Your task to perform on an android device: Play the last video I watched on Youtube Image 0: 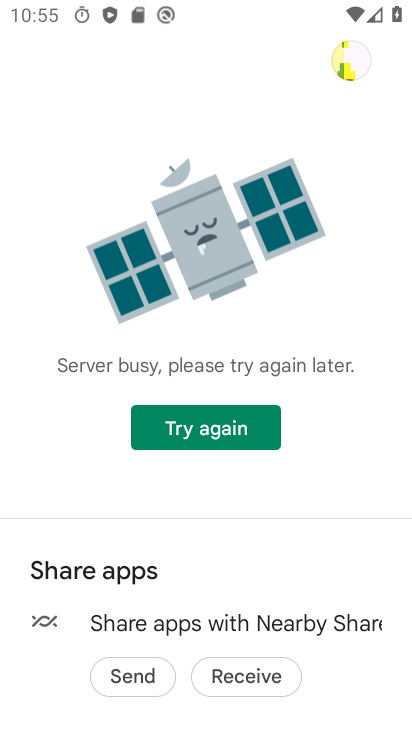
Step 0: press back button
Your task to perform on an android device: Play the last video I watched on Youtube Image 1: 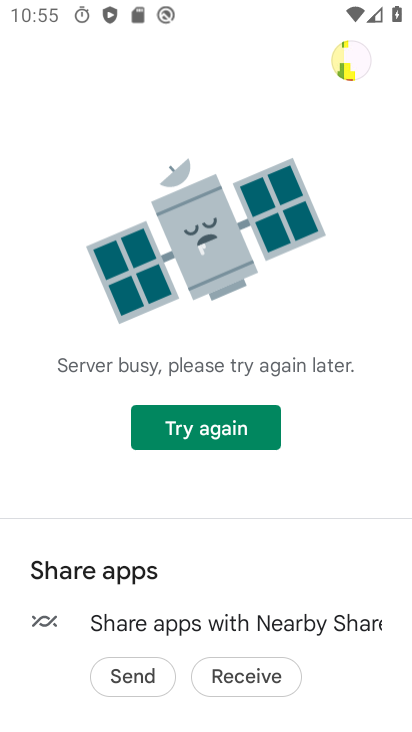
Step 1: press back button
Your task to perform on an android device: Play the last video I watched on Youtube Image 2: 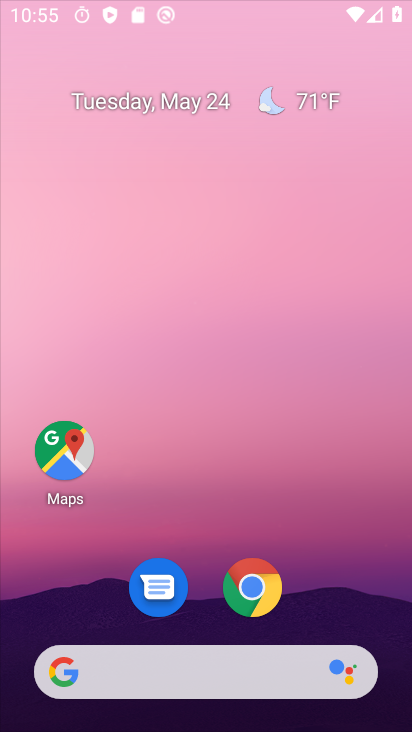
Step 2: press back button
Your task to perform on an android device: Play the last video I watched on Youtube Image 3: 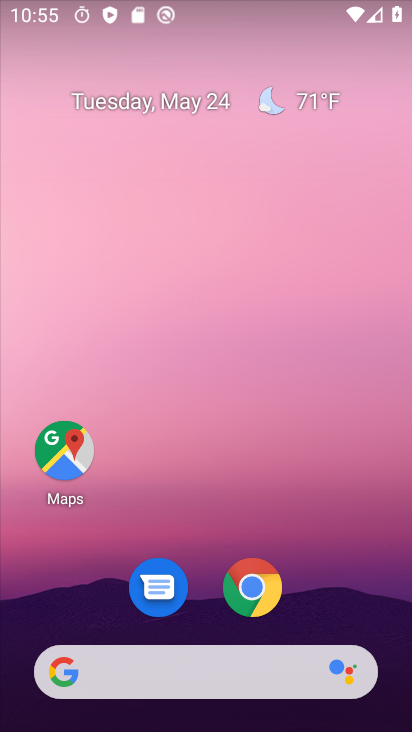
Step 3: press back button
Your task to perform on an android device: Play the last video I watched on Youtube Image 4: 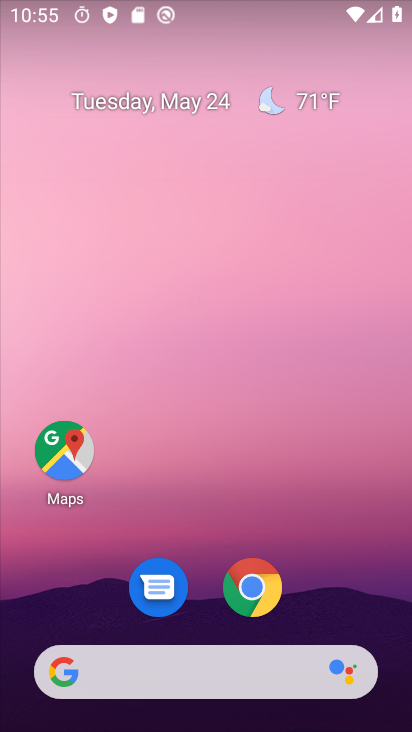
Step 4: press back button
Your task to perform on an android device: Play the last video I watched on Youtube Image 5: 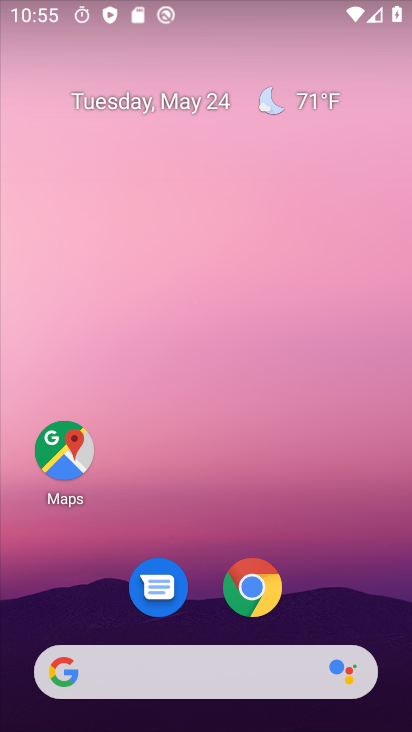
Step 5: drag from (388, 677) to (271, 126)
Your task to perform on an android device: Play the last video I watched on Youtube Image 6: 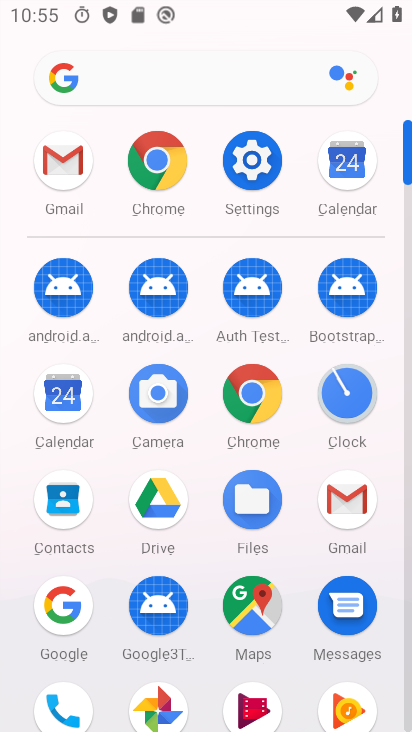
Step 6: drag from (235, 574) to (287, 251)
Your task to perform on an android device: Play the last video I watched on Youtube Image 7: 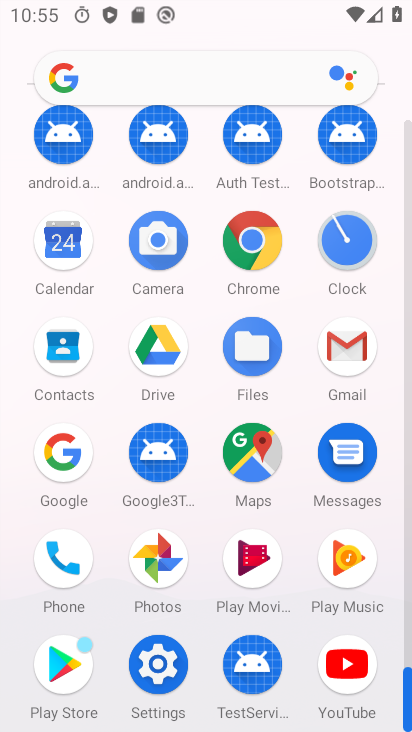
Step 7: drag from (296, 527) to (301, 215)
Your task to perform on an android device: Play the last video I watched on Youtube Image 8: 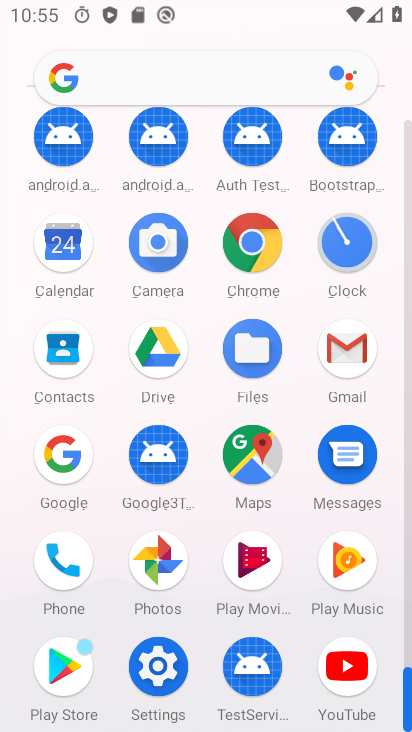
Step 8: click (335, 668)
Your task to perform on an android device: Play the last video I watched on Youtube Image 9: 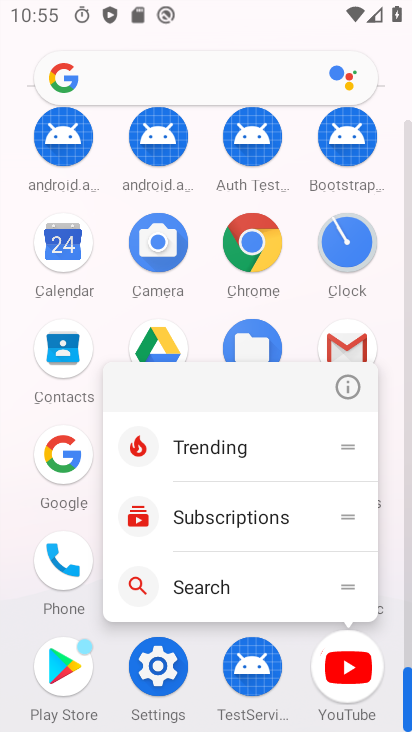
Step 9: click (338, 669)
Your task to perform on an android device: Play the last video I watched on Youtube Image 10: 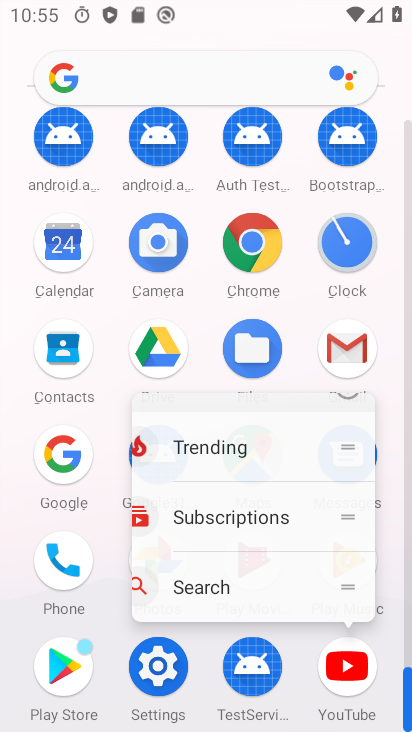
Step 10: click (338, 669)
Your task to perform on an android device: Play the last video I watched on Youtube Image 11: 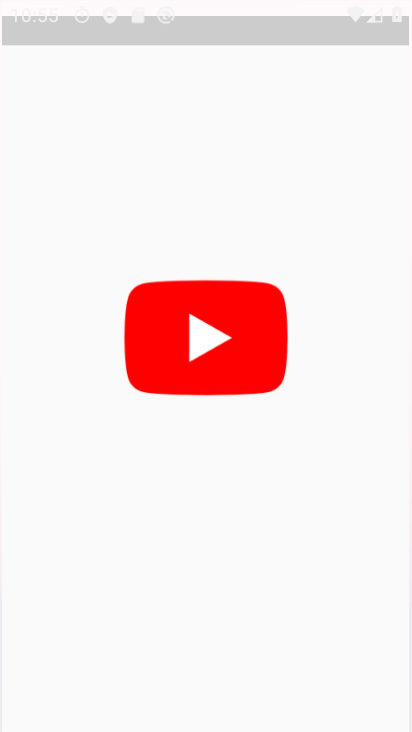
Step 11: click (338, 669)
Your task to perform on an android device: Play the last video I watched on Youtube Image 12: 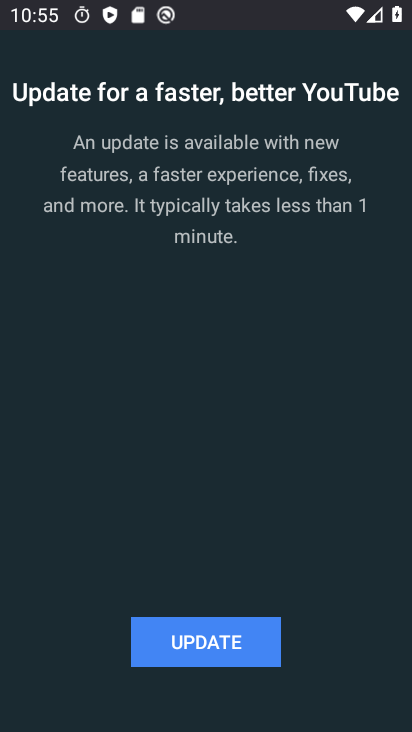
Step 12: click (188, 638)
Your task to perform on an android device: Play the last video I watched on Youtube Image 13: 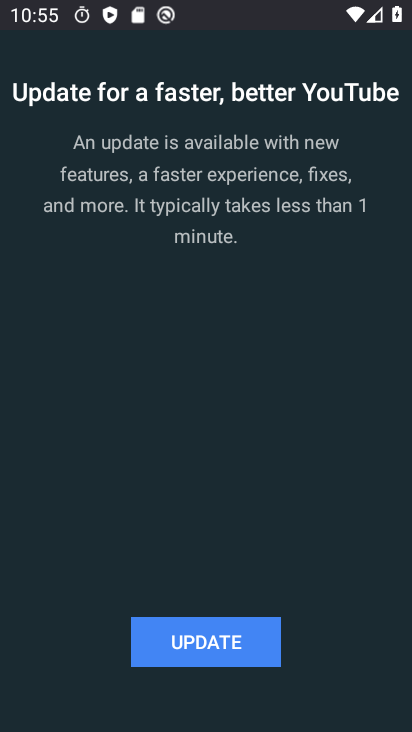
Step 13: click (188, 638)
Your task to perform on an android device: Play the last video I watched on Youtube Image 14: 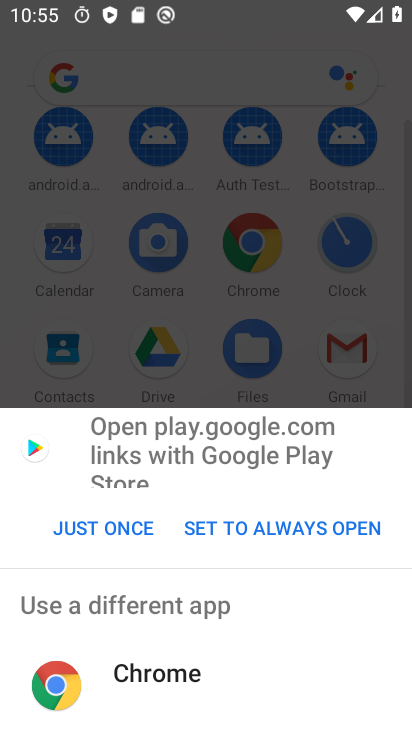
Step 14: click (149, 667)
Your task to perform on an android device: Play the last video I watched on Youtube Image 15: 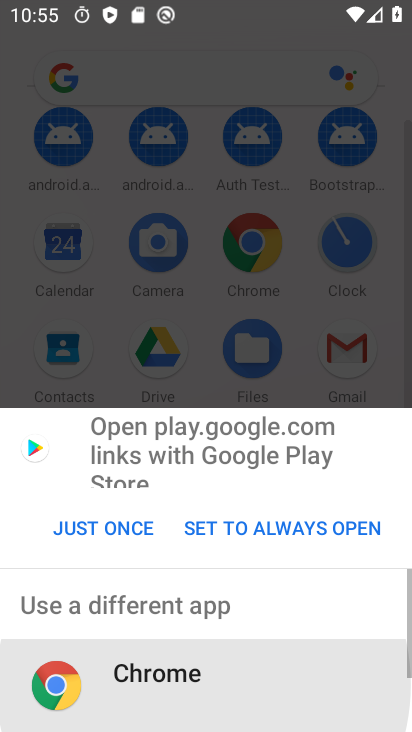
Step 15: click (149, 667)
Your task to perform on an android device: Play the last video I watched on Youtube Image 16: 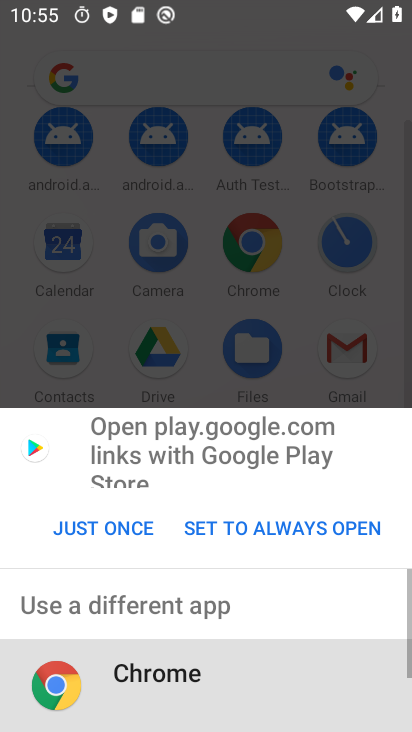
Step 16: click (149, 667)
Your task to perform on an android device: Play the last video I watched on Youtube Image 17: 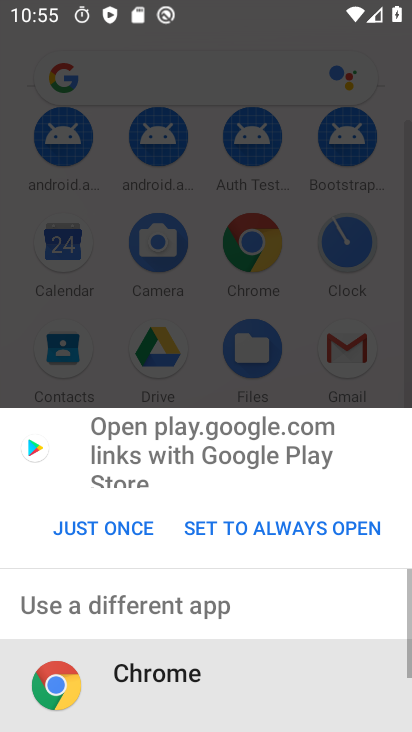
Step 17: click (149, 667)
Your task to perform on an android device: Play the last video I watched on Youtube Image 18: 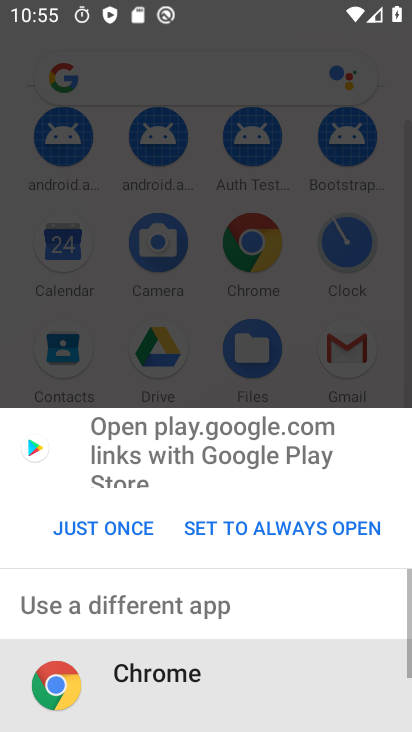
Step 18: click (149, 667)
Your task to perform on an android device: Play the last video I watched on Youtube Image 19: 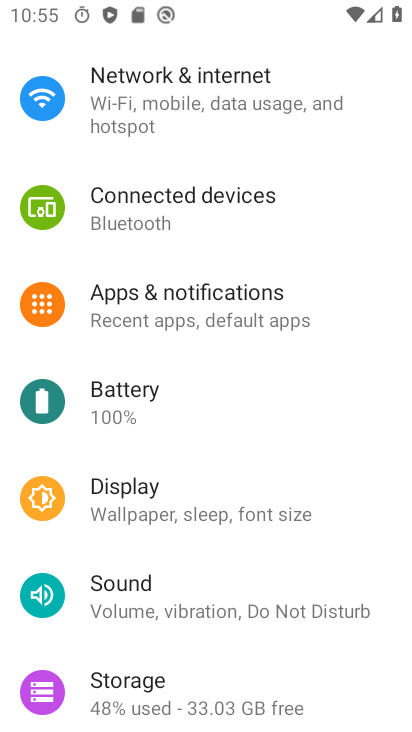
Step 19: press back button
Your task to perform on an android device: Play the last video I watched on Youtube Image 20: 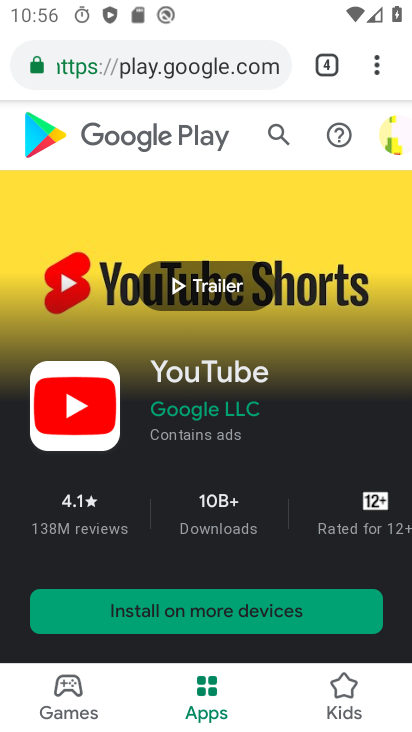
Step 20: drag from (249, 525) to (284, 133)
Your task to perform on an android device: Play the last video I watched on Youtube Image 21: 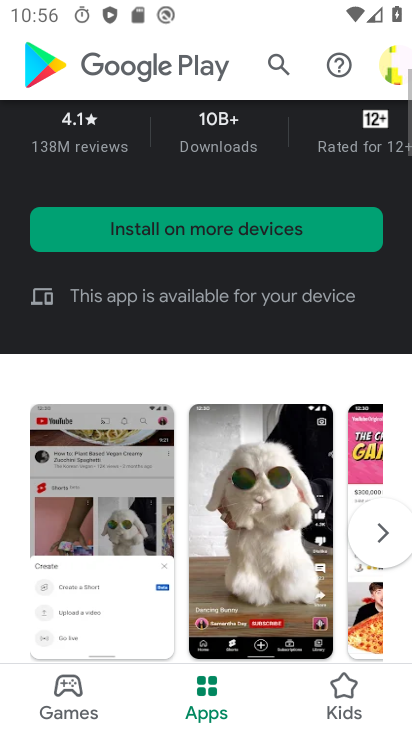
Step 21: drag from (263, 387) to (305, 81)
Your task to perform on an android device: Play the last video I watched on Youtube Image 22: 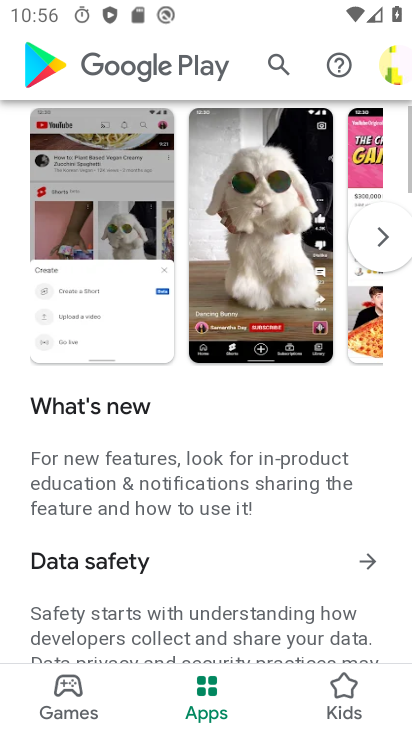
Step 22: drag from (252, 317) to (280, 117)
Your task to perform on an android device: Play the last video I watched on Youtube Image 23: 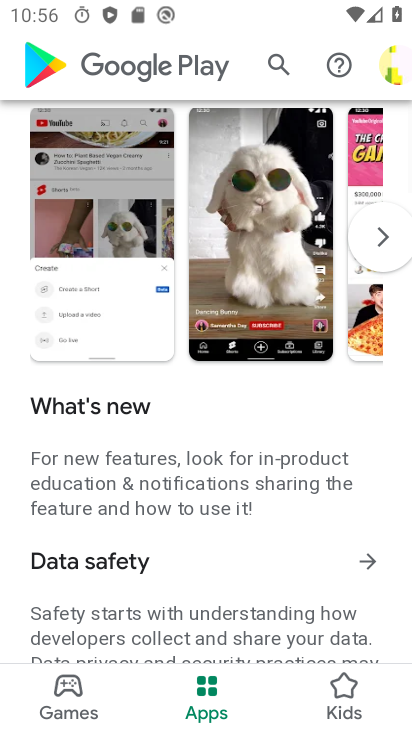
Step 23: drag from (256, 579) to (313, 262)
Your task to perform on an android device: Play the last video I watched on Youtube Image 24: 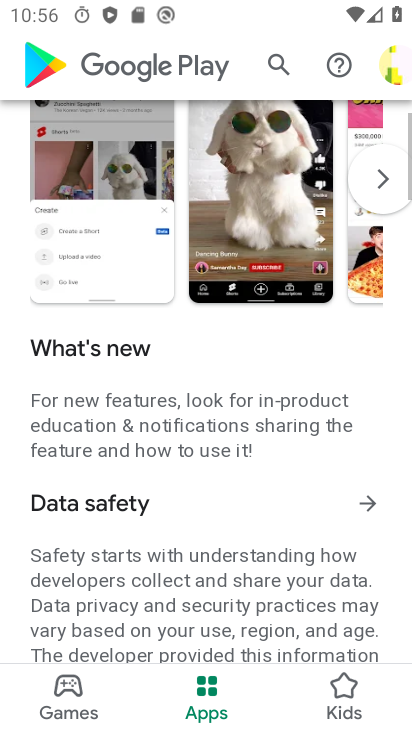
Step 24: drag from (193, 549) to (308, 108)
Your task to perform on an android device: Play the last video I watched on Youtube Image 25: 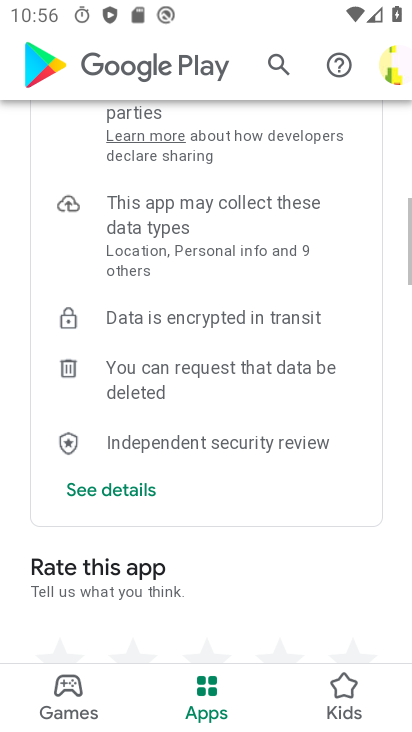
Step 25: drag from (247, 552) to (247, 201)
Your task to perform on an android device: Play the last video I watched on Youtube Image 26: 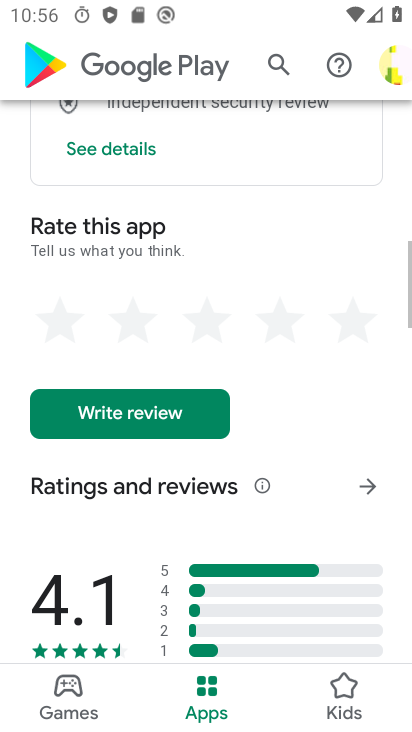
Step 26: drag from (251, 413) to (287, 41)
Your task to perform on an android device: Play the last video I watched on Youtube Image 27: 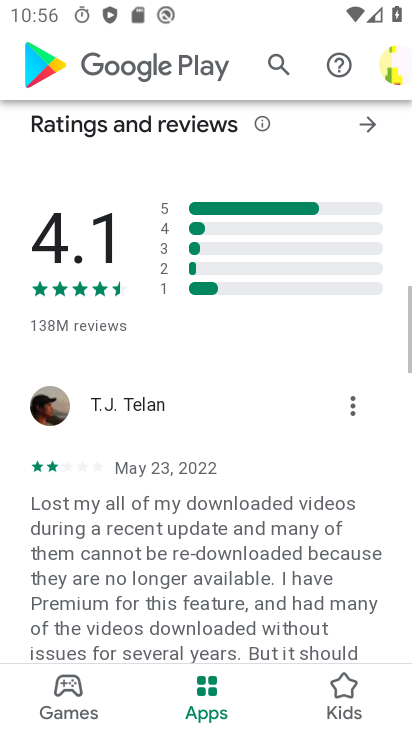
Step 27: drag from (176, 468) to (203, 43)
Your task to perform on an android device: Play the last video I watched on Youtube Image 28: 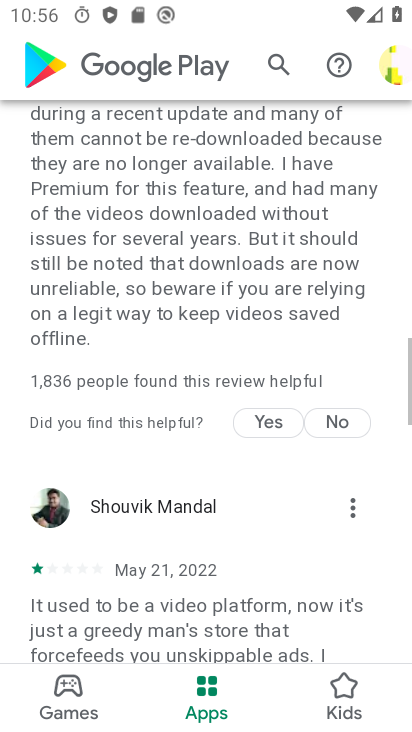
Step 28: drag from (187, 464) to (182, 23)
Your task to perform on an android device: Play the last video I watched on Youtube Image 29: 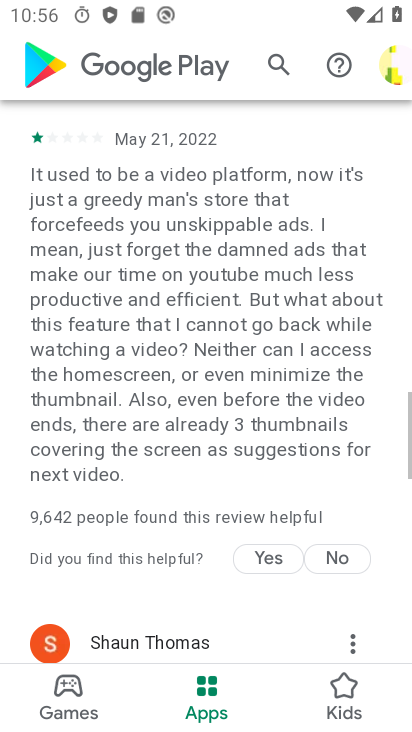
Step 29: drag from (165, 500) to (197, 103)
Your task to perform on an android device: Play the last video I watched on Youtube Image 30: 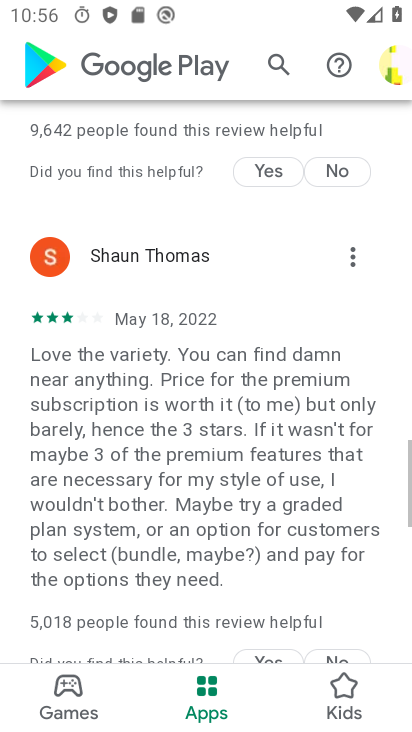
Step 30: drag from (196, 519) to (237, 117)
Your task to perform on an android device: Play the last video I watched on Youtube Image 31: 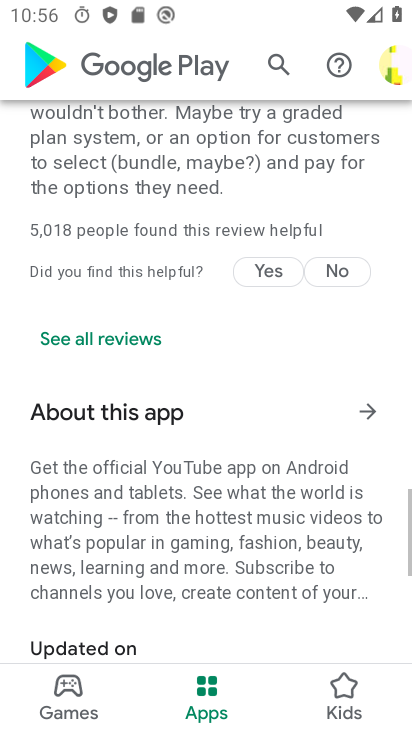
Step 31: drag from (226, 574) to (226, 194)
Your task to perform on an android device: Play the last video I watched on Youtube Image 32: 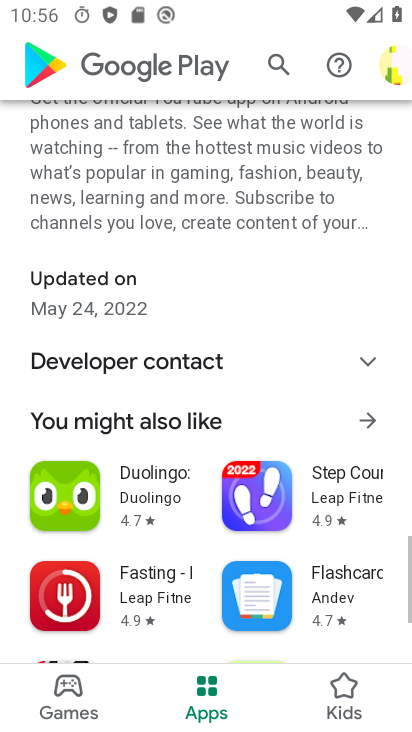
Step 32: drag from (180, 518) to (180, 135)
Your task to perform on an android device: Play the last video I watched on Youtube Image 33: 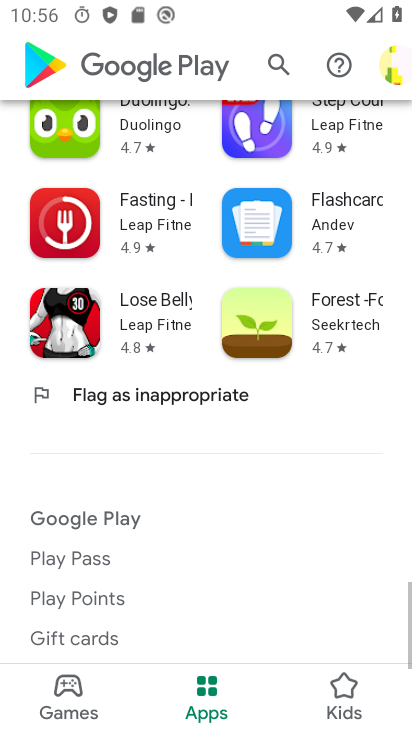
Step 33: drag from (180, 513) to (181, 157)
Your task to perform on an android device: Play the last video I watched on Youtube Image 34: 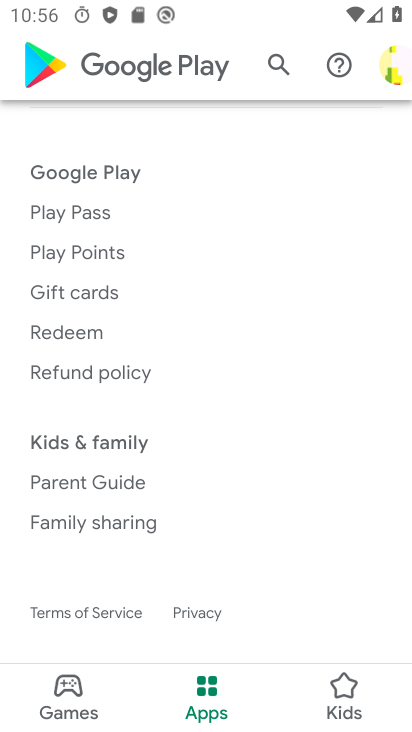
Step 34: drag from (199, 433) to (200, 619)
Your task to perform on an android device: Play the last video I watched on Youtube Image 35: 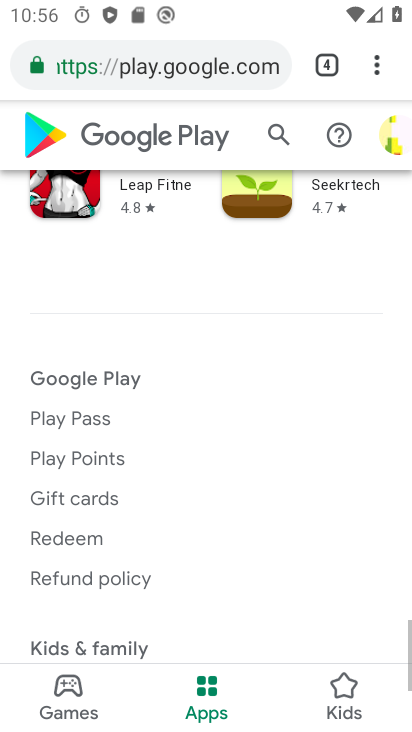
Step 35: drag from (109, 290) to (154, 559)
Your task to perform on an android device: Play the last video I watched on Youtube Image 36: 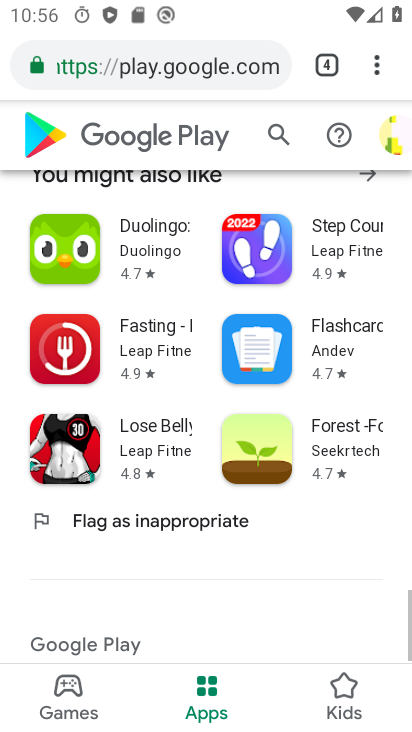
Step 36: drag from (157, 227) to (226, 590)
Your task to perform on an android device: Play the last video I watched on Youtube Image 37: 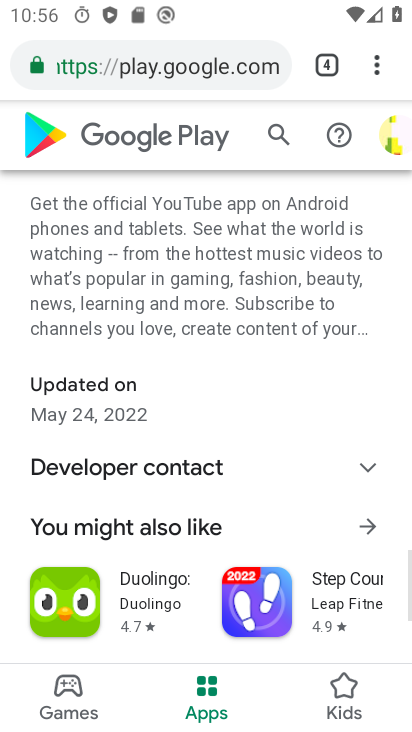
Step 37: drag from (215, 268) to (314, 616)
Your task to perform on an android device: Play the last video I watched on Youtube Image 38: 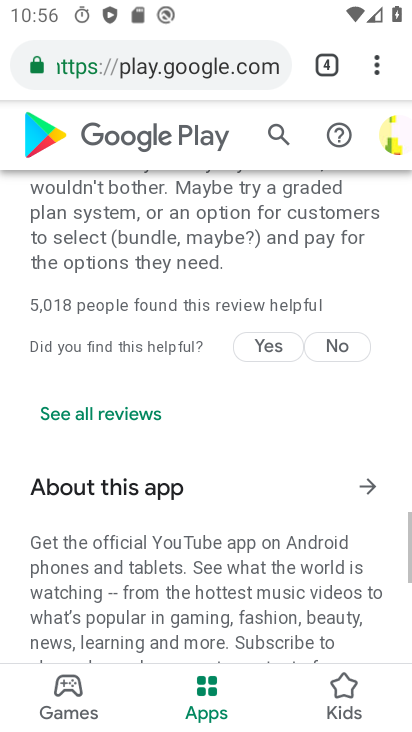
Step 38: drag from (240, 339) to (237, 489)
Your task to perform on an android device: Play the last video I watched on Youtube Image 39: 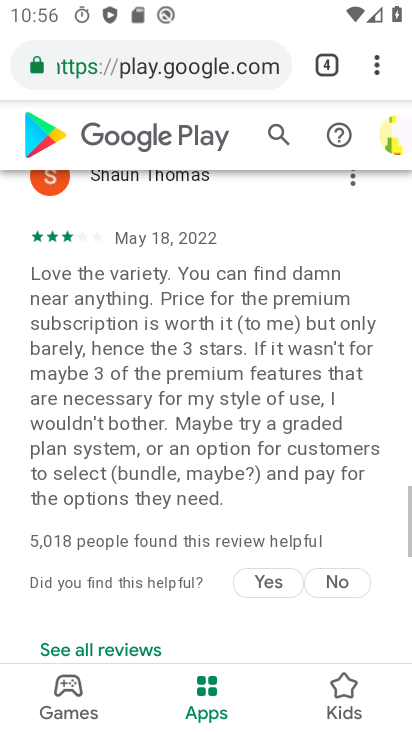
Step 39: drag from (130, 219) to (185, 592)
Your task to perform on an android device: Play the last video I watched on Youtube Image 40: 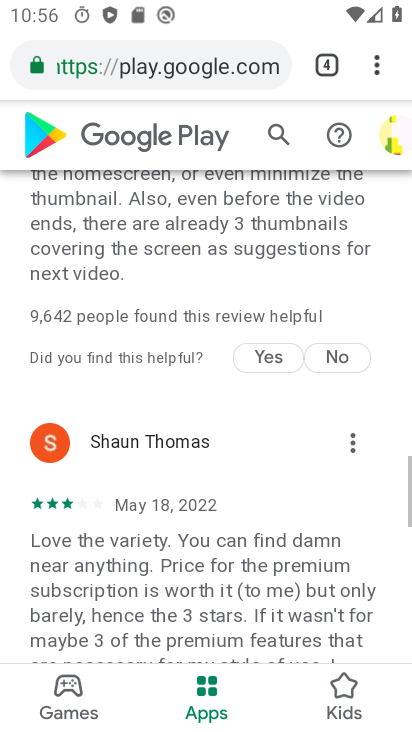
Step 40: drag from (143, 538) to (227, 565)
Your task to perform on an android device: Play the last video I watched on Youtube Image 41: 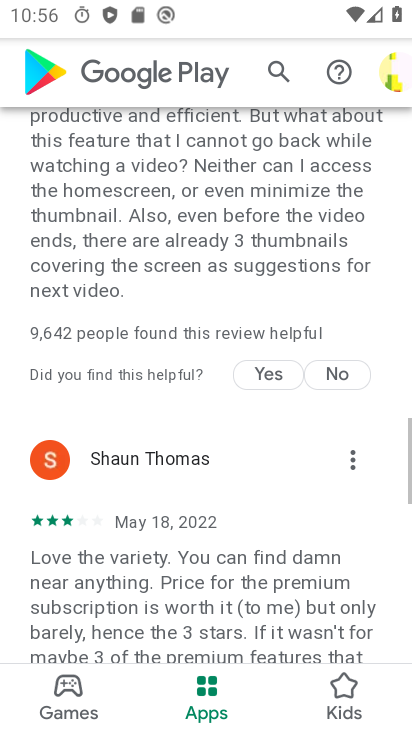
Step 41: drag from (198, 362) to (158, 616)
Your task to perform on an android device: Play the last video I watched on Youtube Image 42: 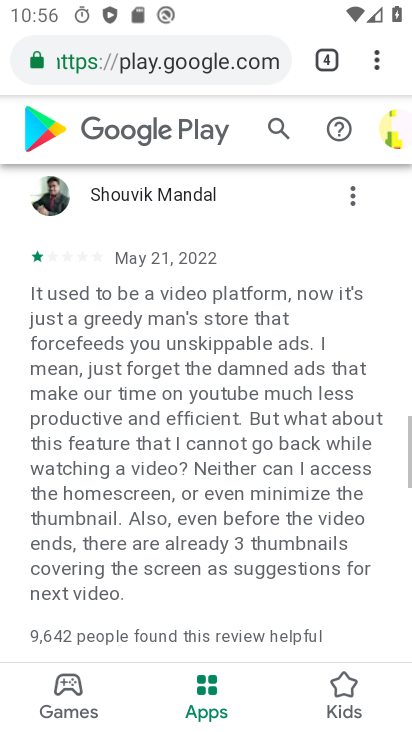
Step 42: drag from (108, 245) to (215, 534)
Your task to perform on an android device: Play the last video I watched on Youtube Image 43: 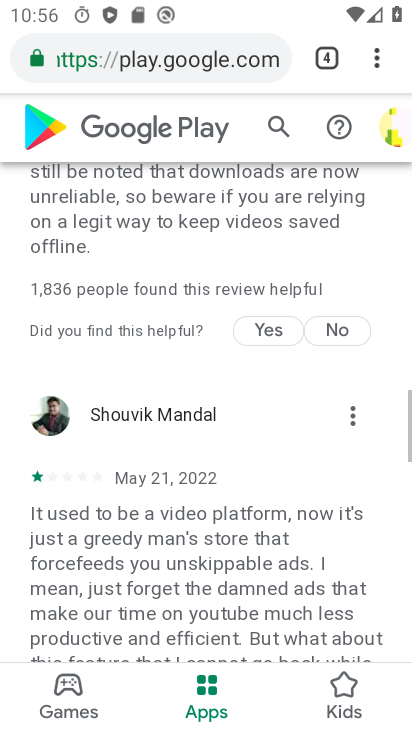
Step 43: click (152, 571)
Your task to perform on an android device: Play the last video I watched on Youtube Image 44: 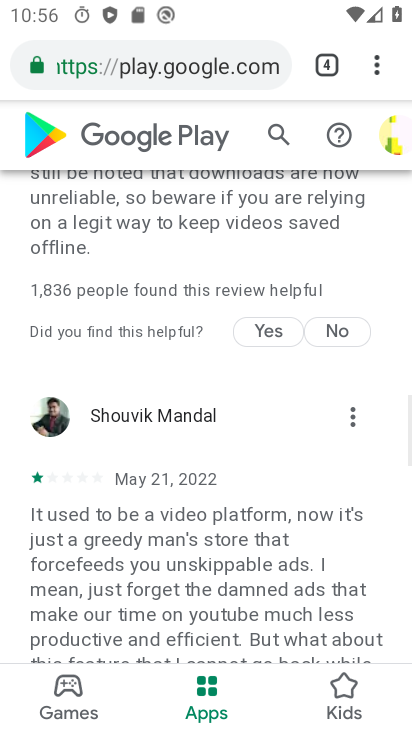
Step 44: task complete